Your task to perform on an android device: Check the weather Image 0: 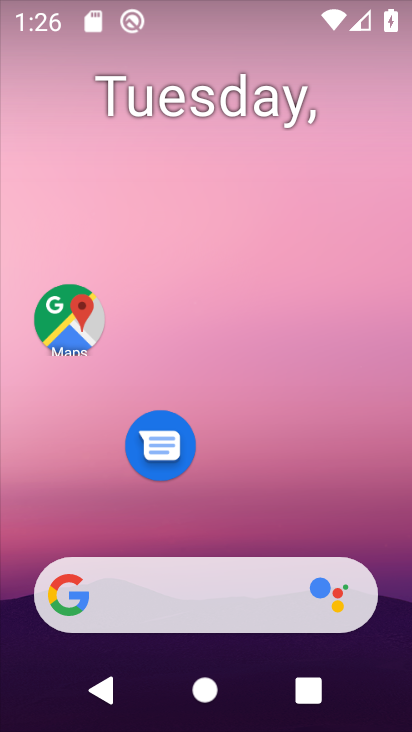
Step 0: drag from (235, 504) to (159, 164)
Your task to perform on an android device: Check the weather Image 1: 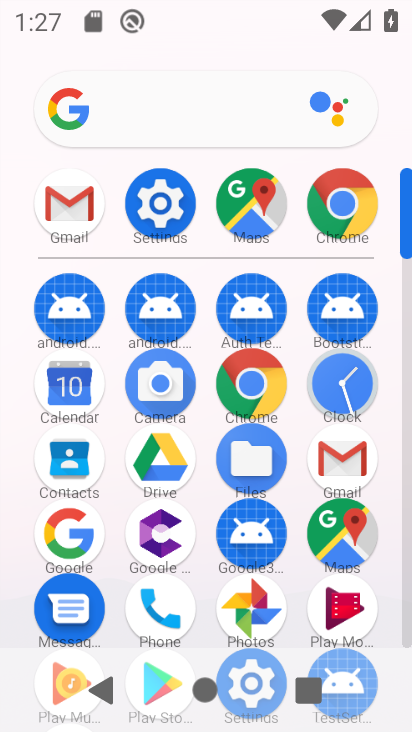
Step 1: click (71, 531)
Your task to perform on an android device: Check the weather Image 2: 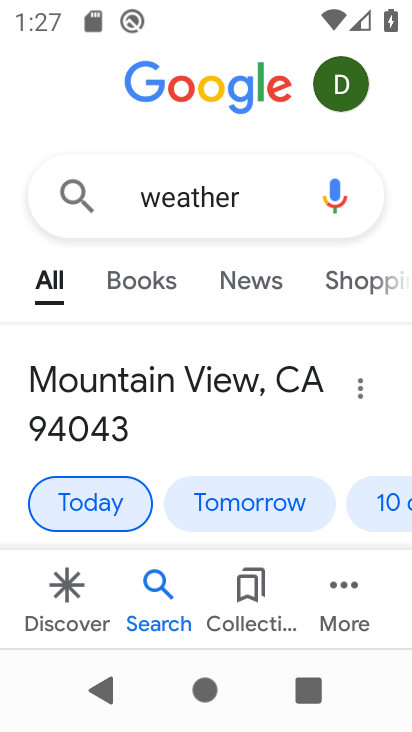
Step 2: task complete